Your task to perform on an android device: Open sound settings Image 0: 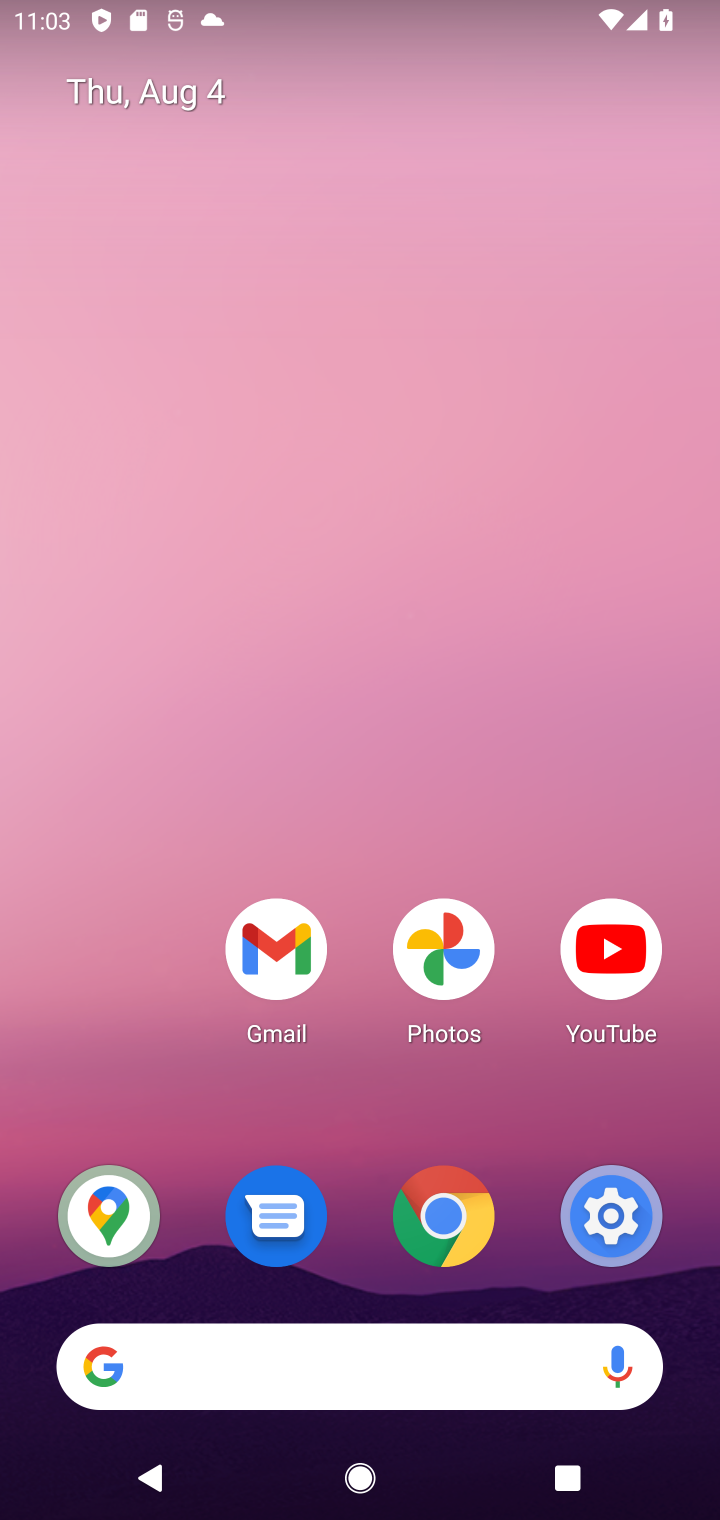
Step 0: click (622, 1214)
Your task to perform on an android device: Open sound settings Image 1: 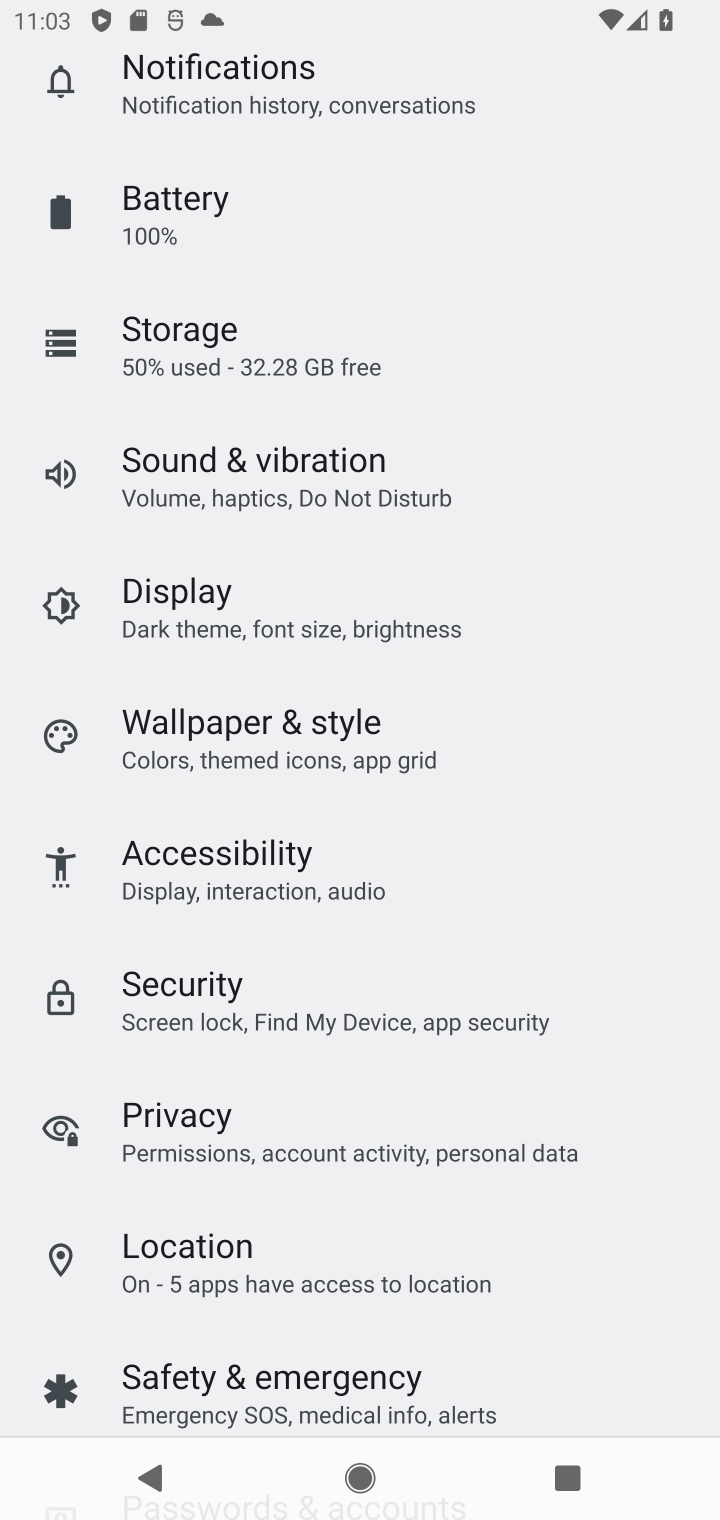
Step 1: drag from (338, 1237) to (350, 811)
Your task to perform on an android device: Open sound settings Image 2: 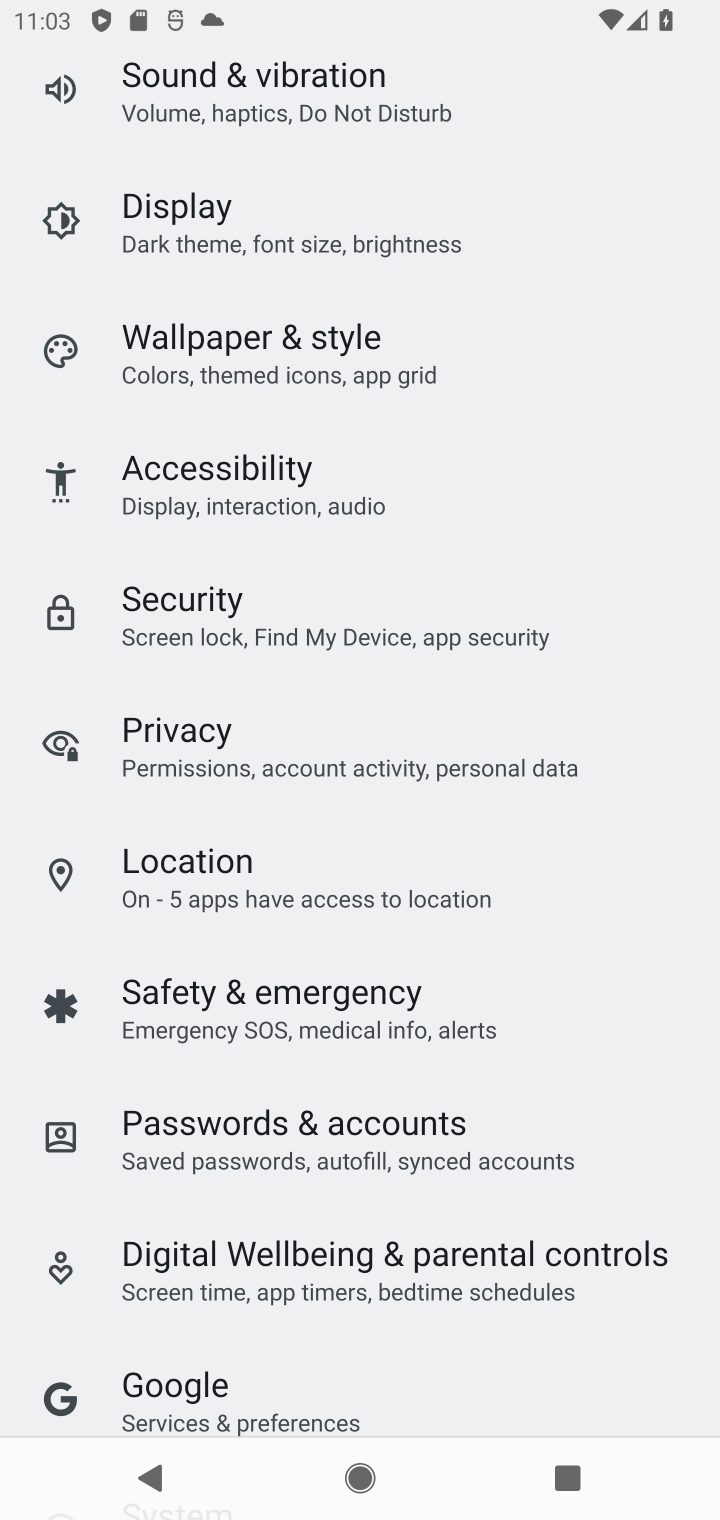
Step 2: drag from (330, 1317) to (303, 967)
Your task to perform on an android device: Open sound settings Image 3: 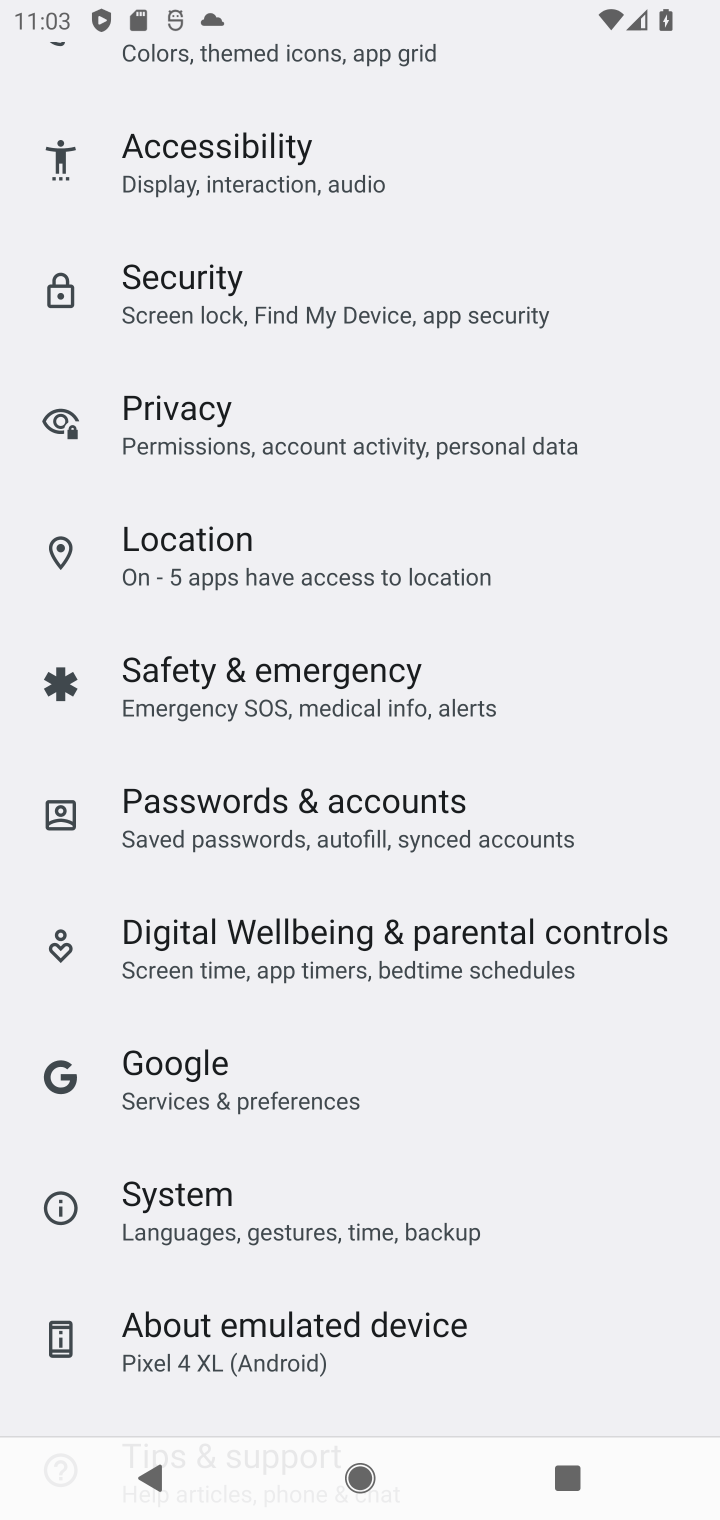
Step 3: drag from (411, 1264) to (478, 975)
Your task to perform on an android device: Open sound settings Image 4: 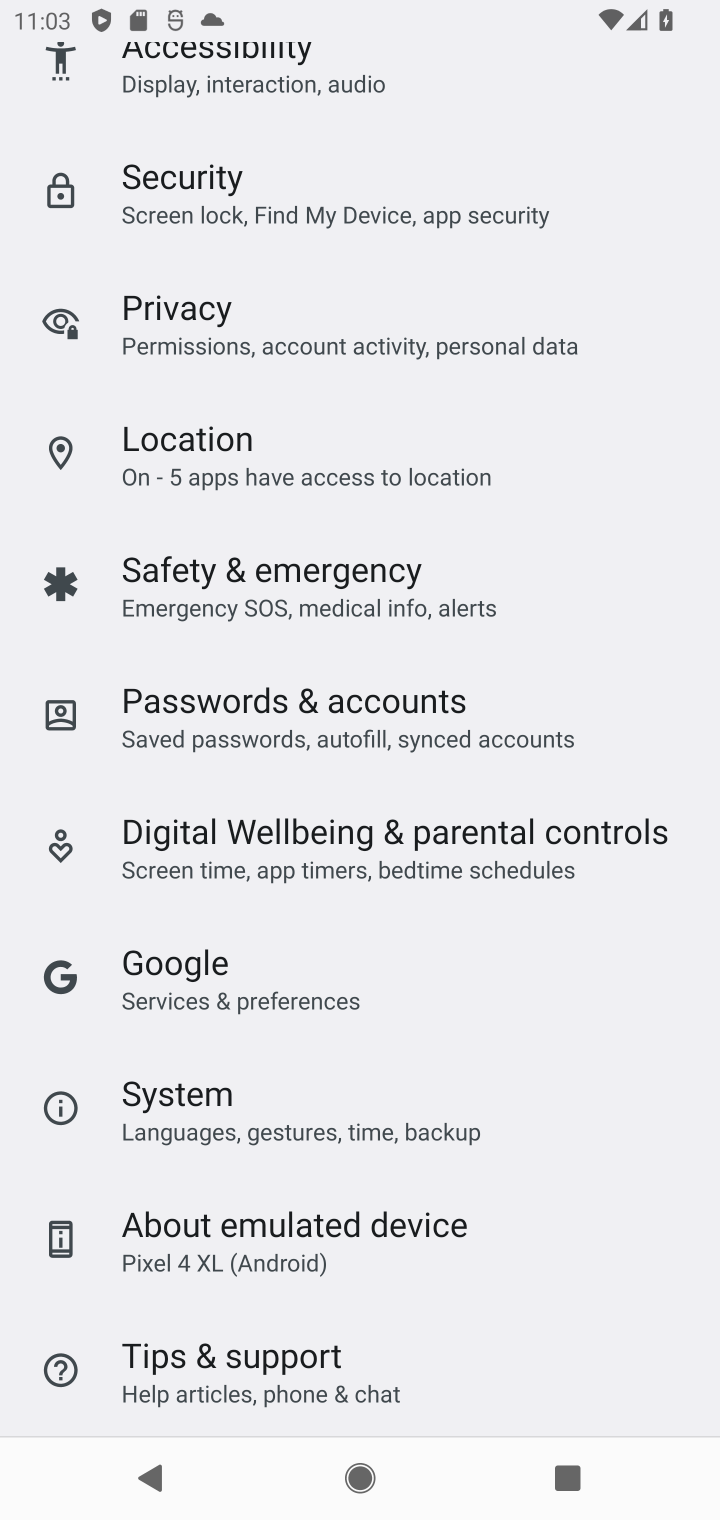
Step 4: drag from (352, 542) to (497, 1337)
Your task to perform on an android device: Open sound settings Image 5: 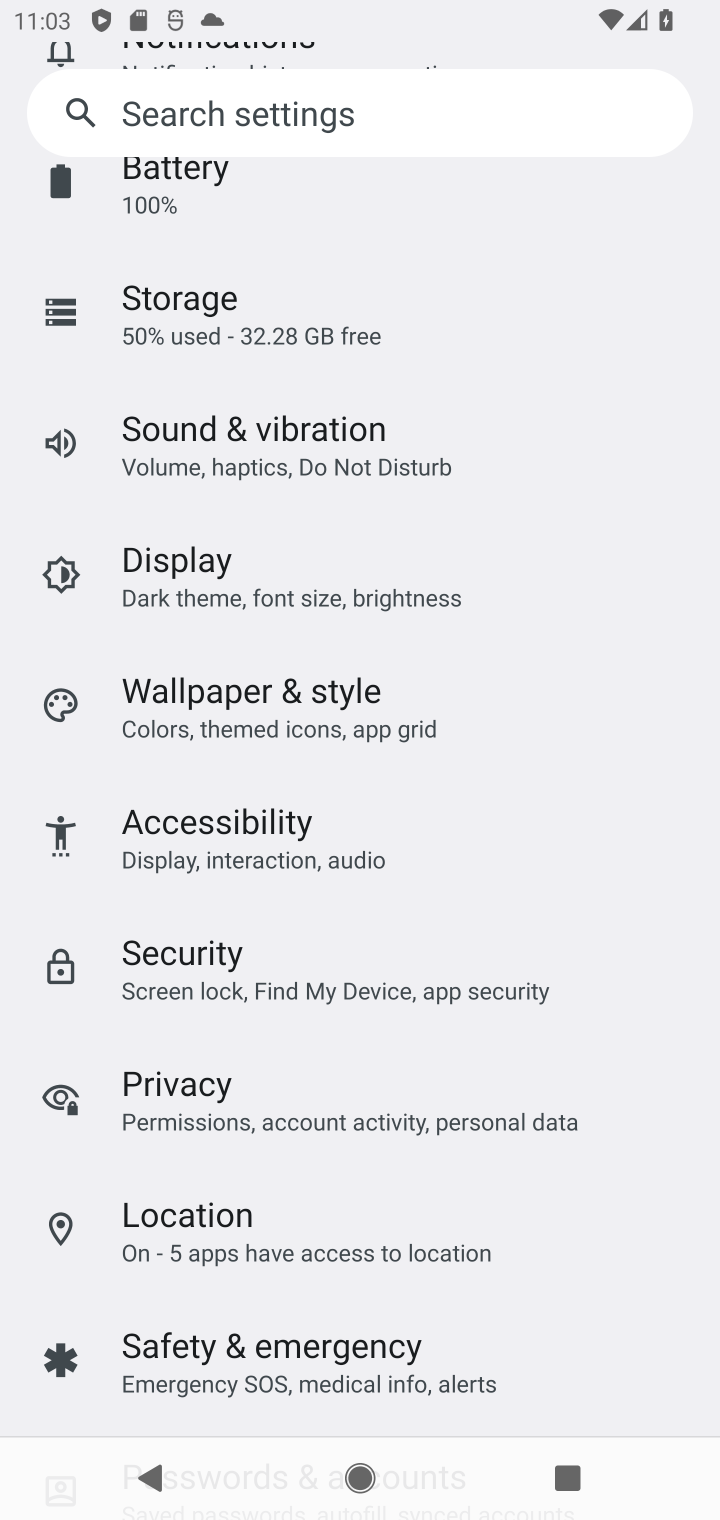
Step 5: drag from (389, 490) to (429, 871)
Your task to perform on an android device: Open sound settings Image 6: 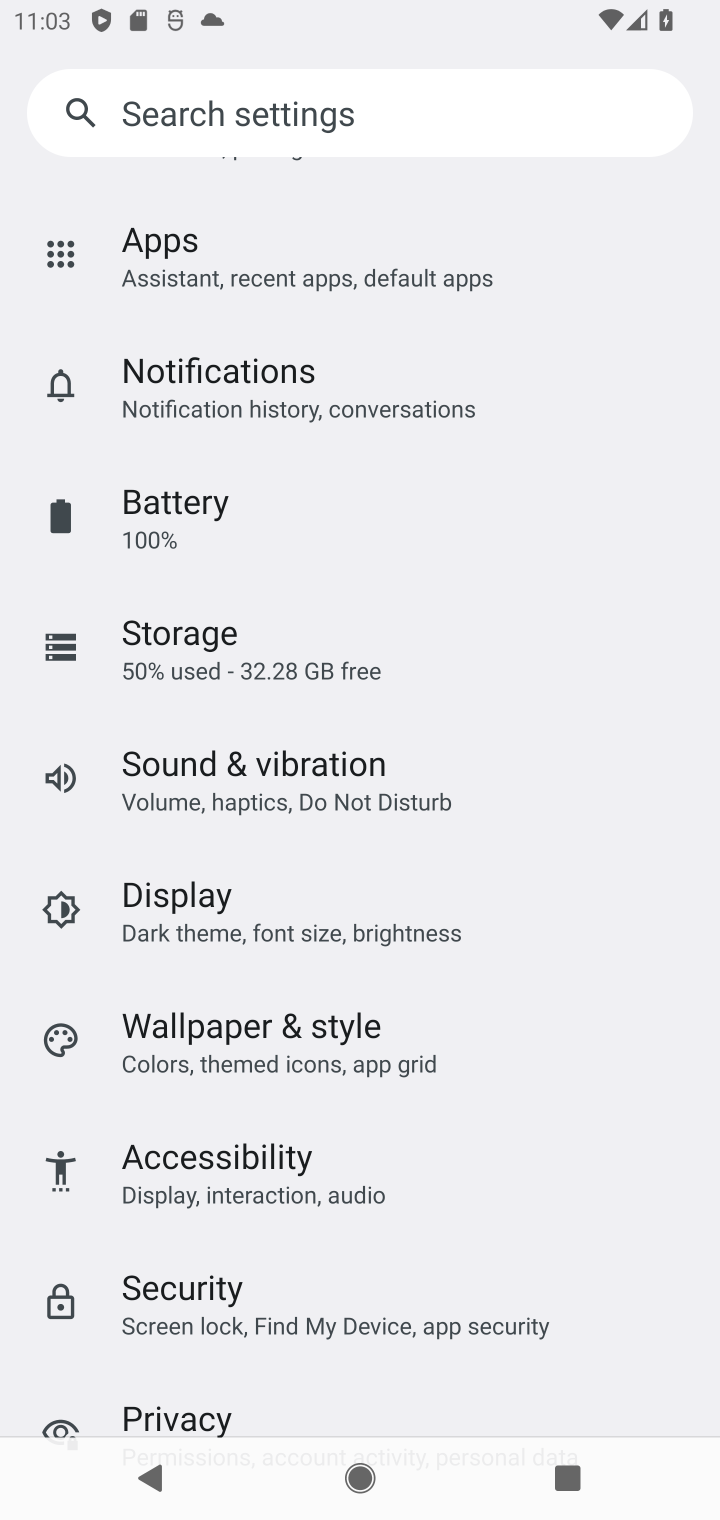
Step 6: click (307, 800)
Your task to perform on an android device: Open sound settings Image 7: 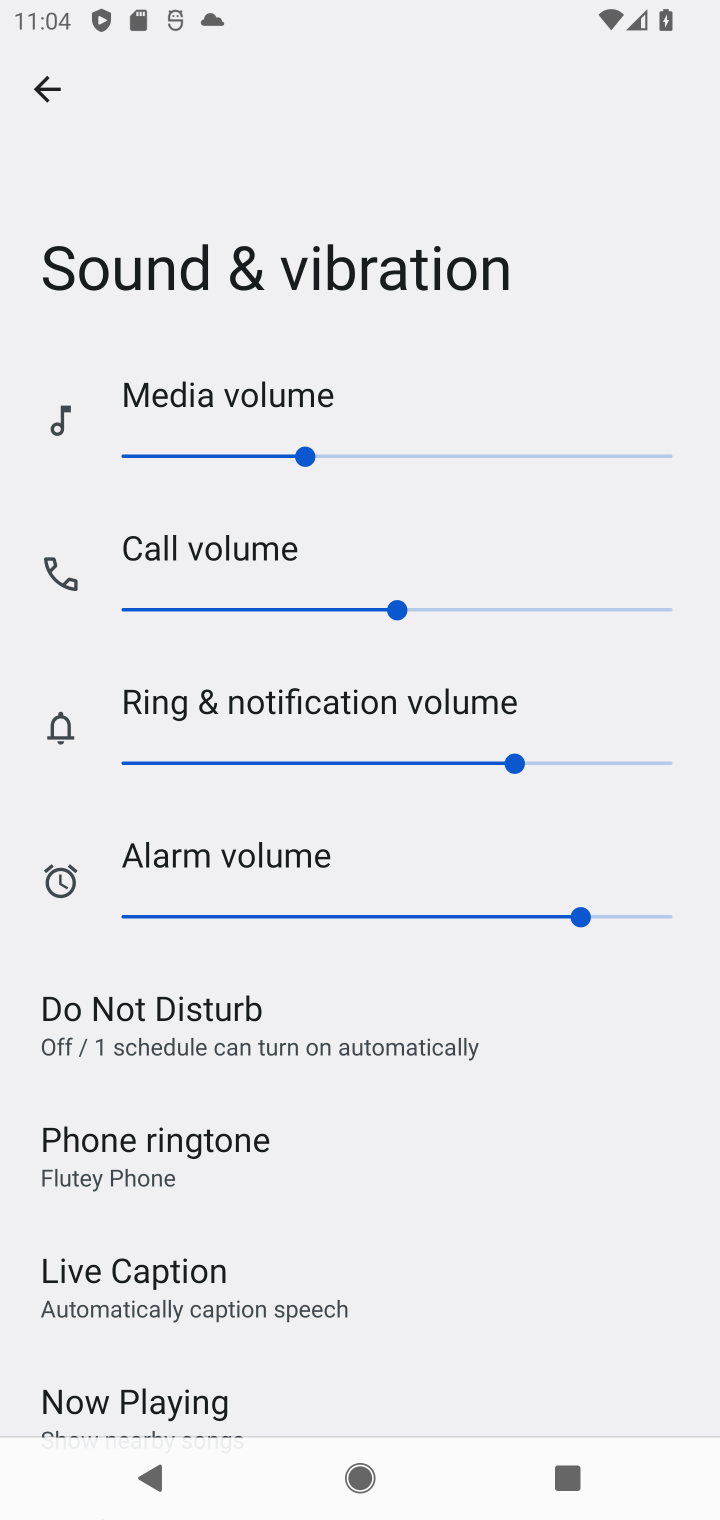
Step 7: task complete